Your task to perform on an android device: change notification settings in the gmail app Image 0: 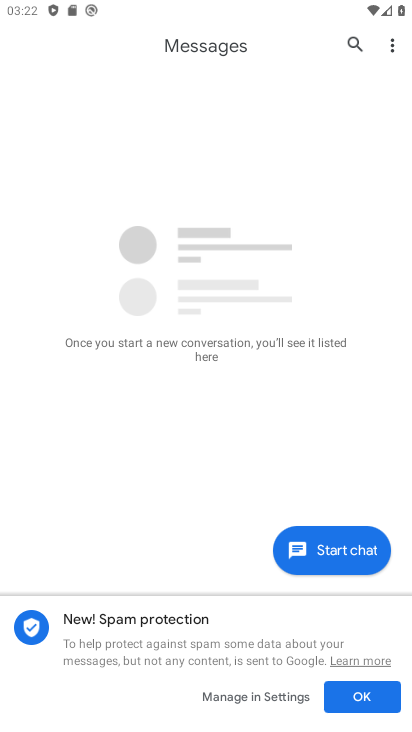
Step 0: press home button
Your task to perform on an android device: change notification settings in the gmail app Image 1: 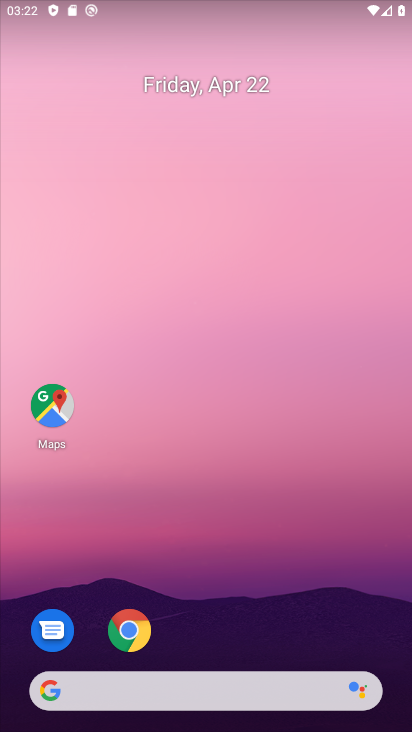
Step 1: drag from (220, 571) to (301, 132)
Your task to perform on an android device: change notification settings in the gmail app Image 2: 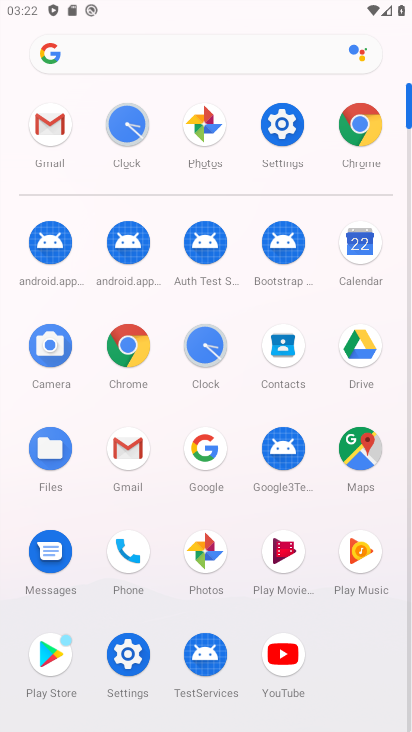
Step 2: click (126, 457)
Your task to perform on an android device: change notification settings in the gmail app Image 3: 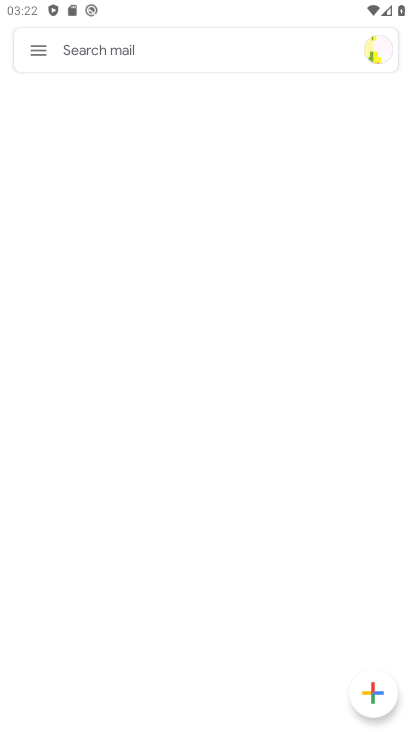
Step 3: click (38, 45)
Your task to perform on an android device: change notification settings in the gmail app Image 4: 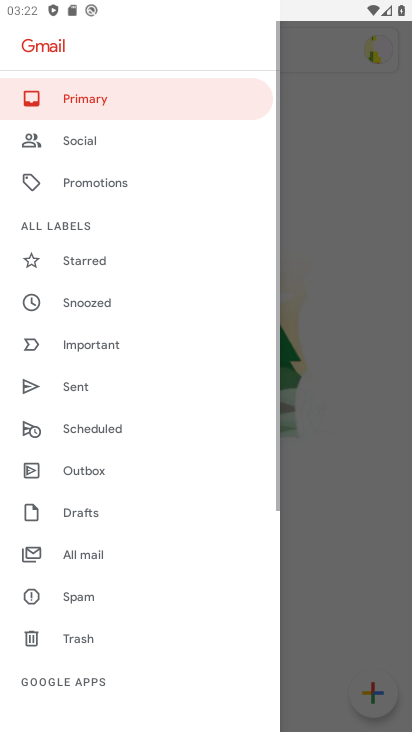
Step 4: drag from (87, 660) to (247, 38)
Your task to perform on an android device: change notification settings in the gmail app Image 5: 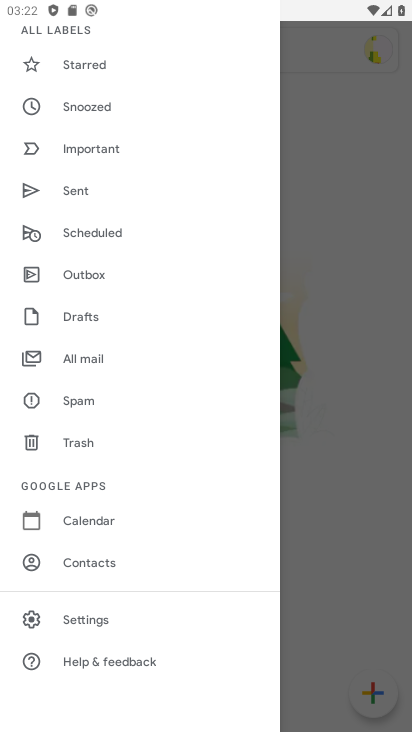
Step 5: click (91, 609)
Your task to perform on an android device: change notification settings in the gmail app Image 6: 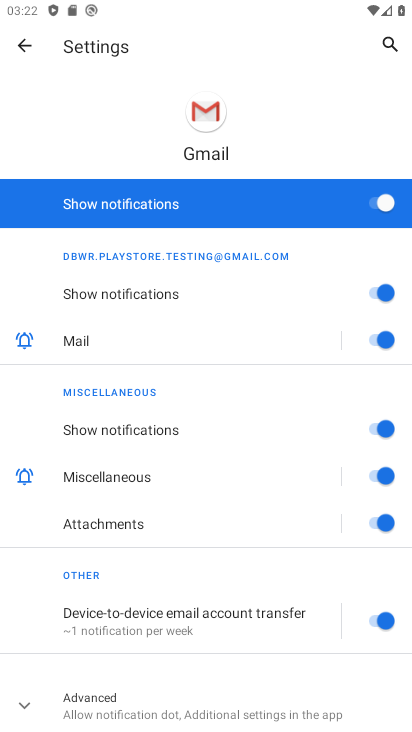
Step 6: click (366, 197)
Your task to perform on an android device: change notification settings in the gmail app Image 7: 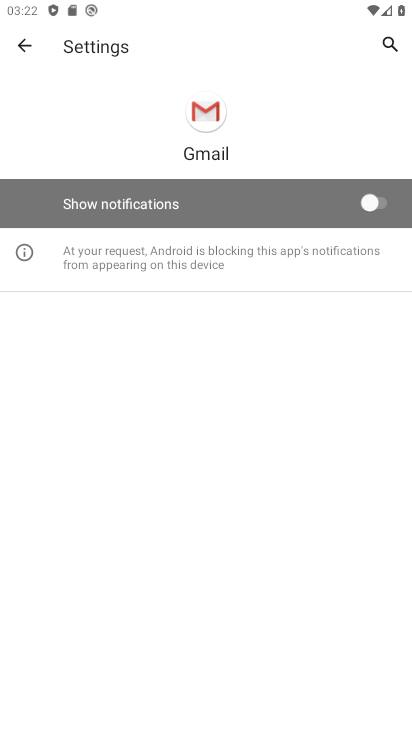
Step 7: task complete